Your task to perform on an android device: Toggle the flashlight Image 0: 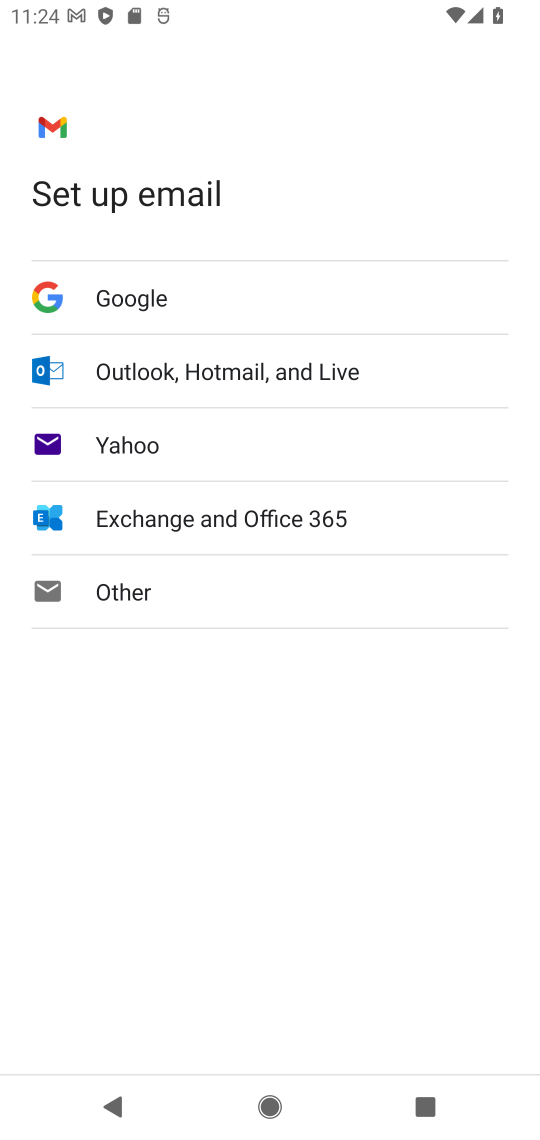
Step 0: press home button
Your task to perform on an android device: Toggle the flashlight Image 1: 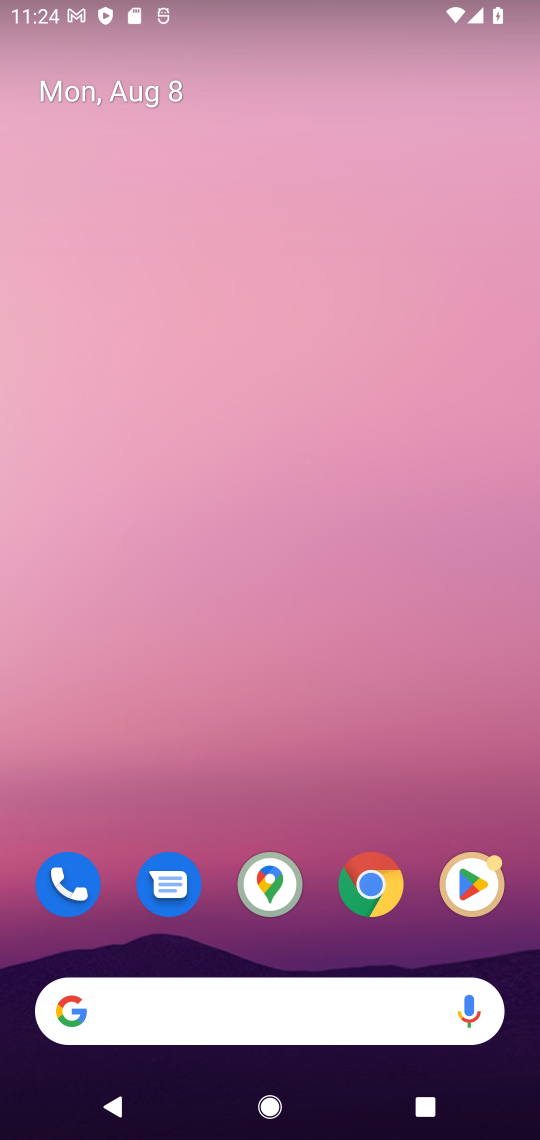
Step 1: drag from (267, 960) to (165, 6)
Your task to perform on an android device: Toggle the flashlight Image 2: 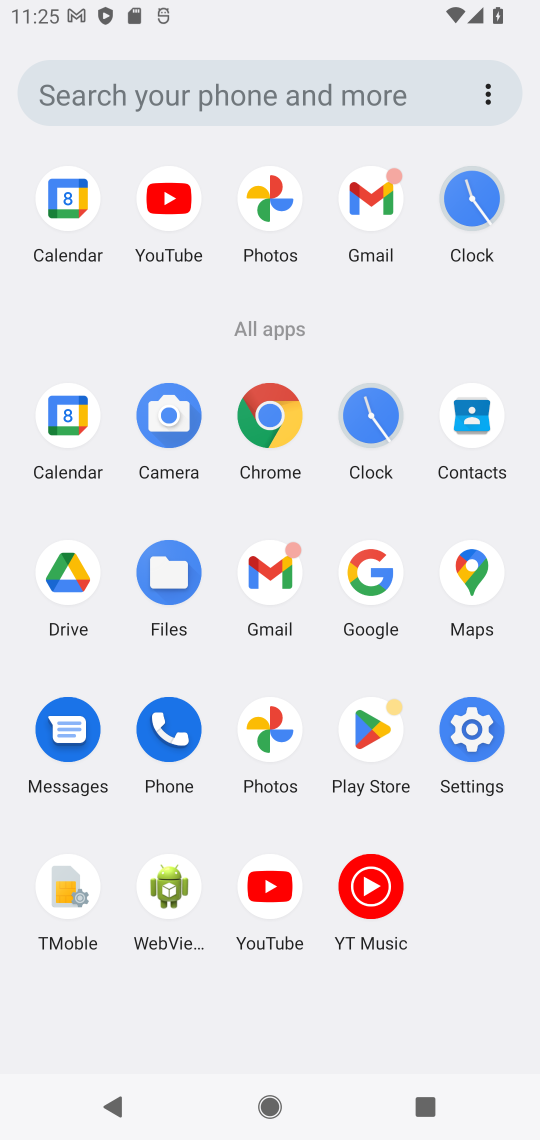
Step 2: click (471, 732)
Your task to perform on an android device: Toggle the flashlight Image 3: 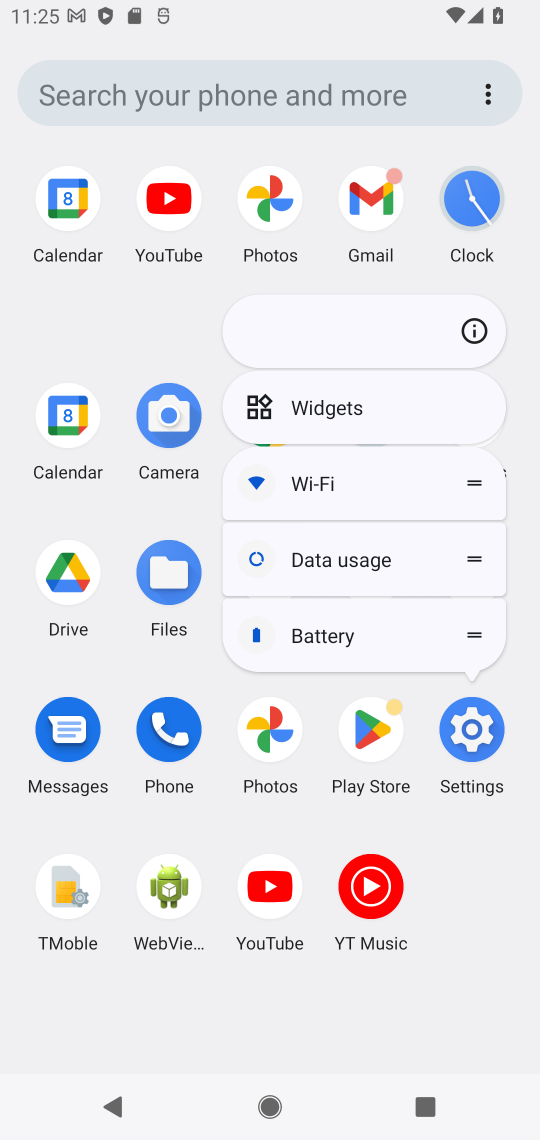
Step 3: click (486, 746)
Your task to perform on an android device: Toggle the flashlight Image 4: 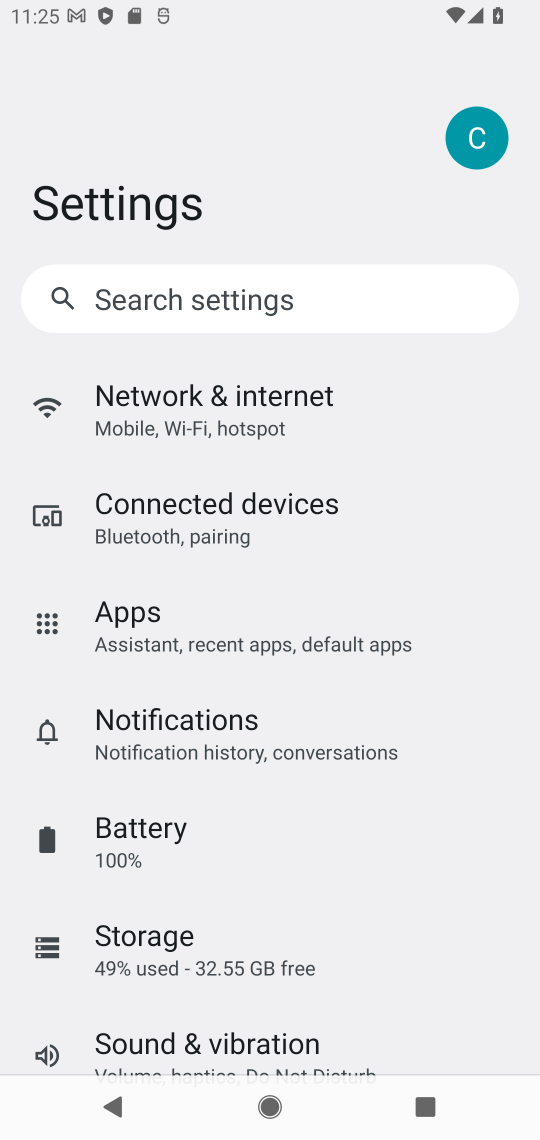
Step 4: click (222, 296)
Your task to perform on an android device: Toggle the flashlight Image 5: 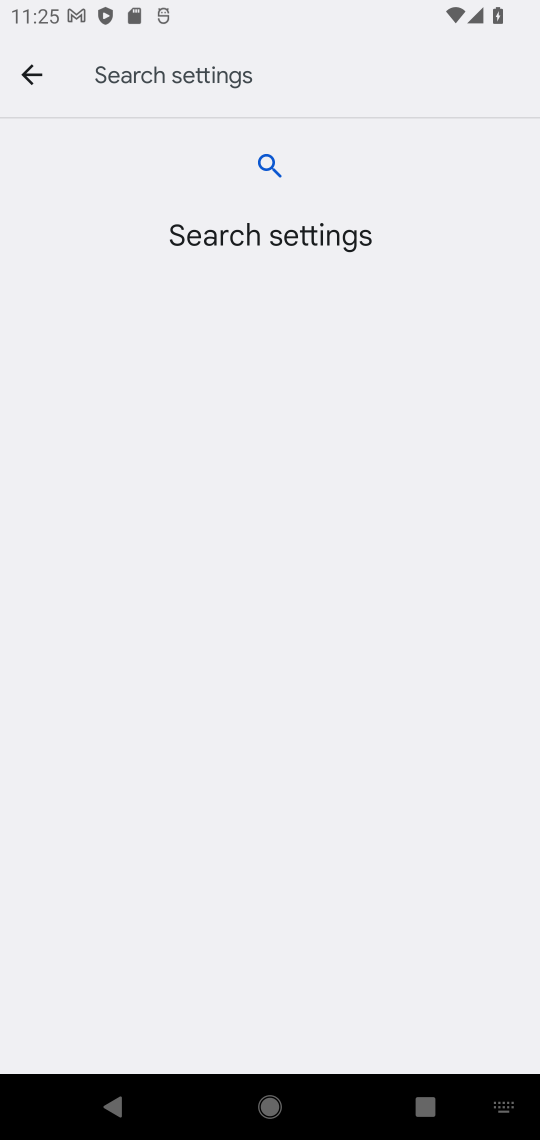
Step 5: type "flashlight"
Your task to perform on an android device: Toggle the flashlight Image 6: 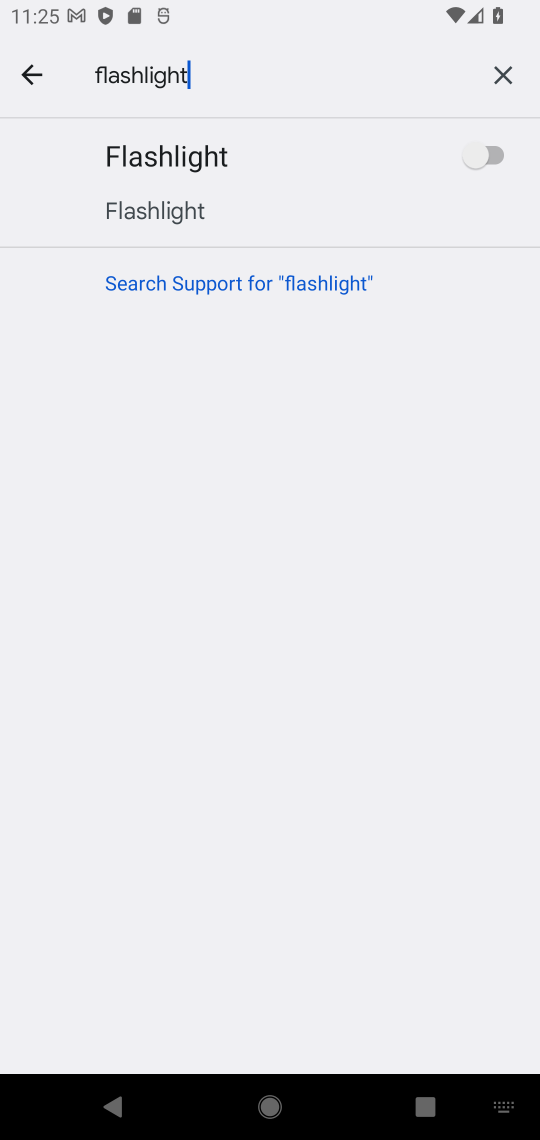
Step 6: click (511, 134)
Your task to perform on an android device: Toggle the flashlight Image 7: 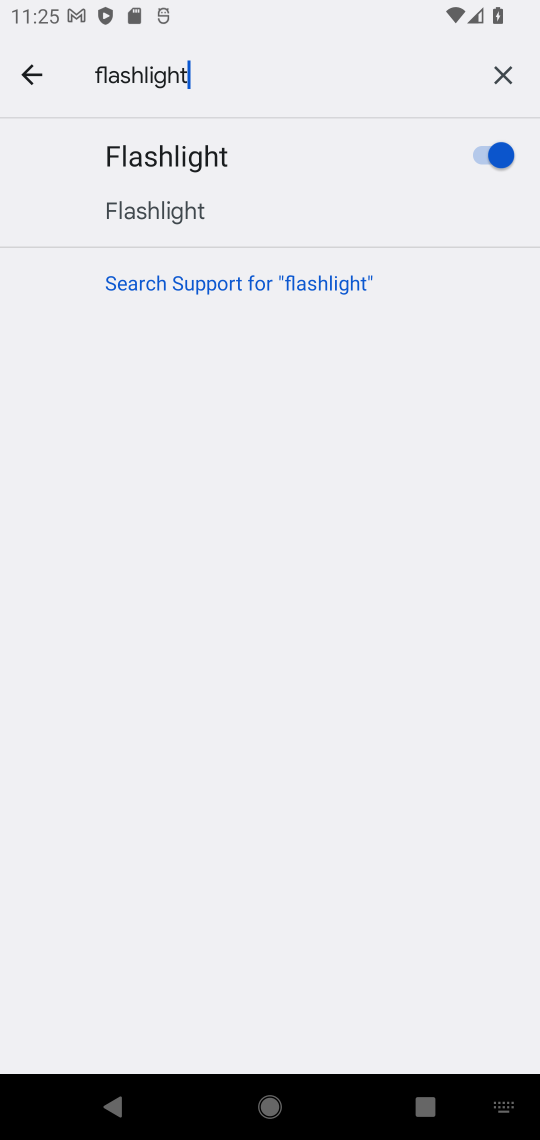
Step 7: task complete